Your task to perform on an android device: turn on sleep mode Image 0: 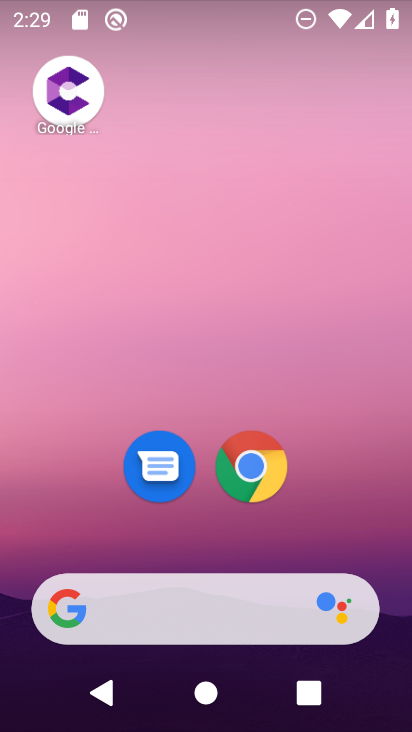
Step 0: drag from (210, 542) to (242, 205)
Your task to perform on an android device: turn on sleep mode Image 1: 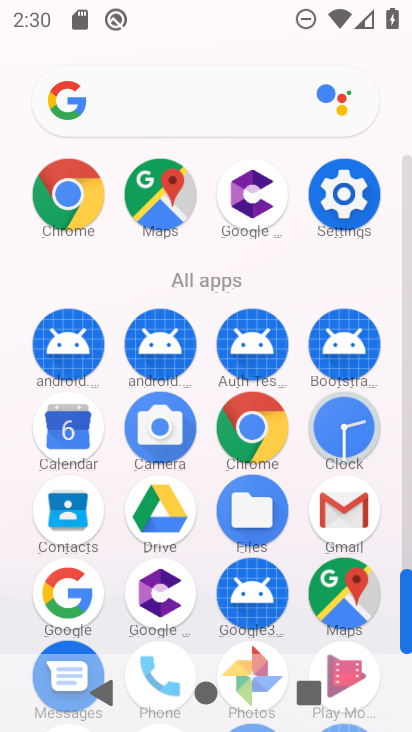
Step 1: click (335, 198)
Your task to perform on an android device: turn on sleep mode Image 2: 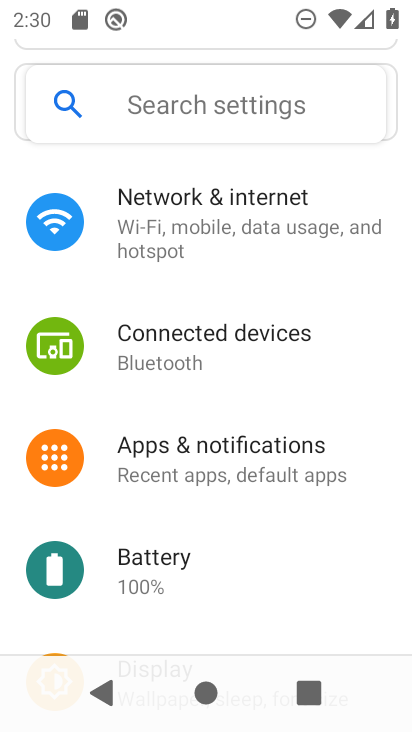
Step 2: press home button
Your task to perform on an android device: turn on sleep mode Image 3: 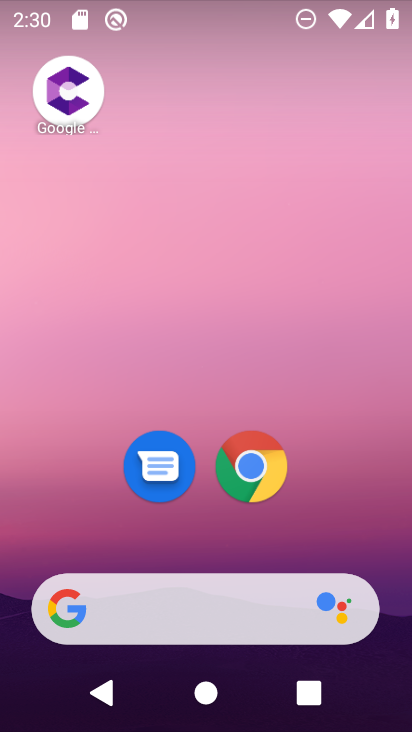
Step 3: drag from (197, 547) to (208, 244)
Your task to perform on an android device: turn on sleep mode Image 4: 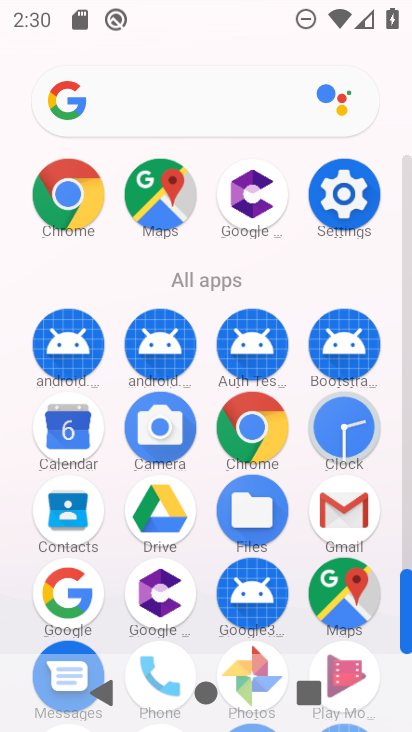
Step 4: click (350, 198)
Your task to perform on an android device: turn on sleep mode Image 5: 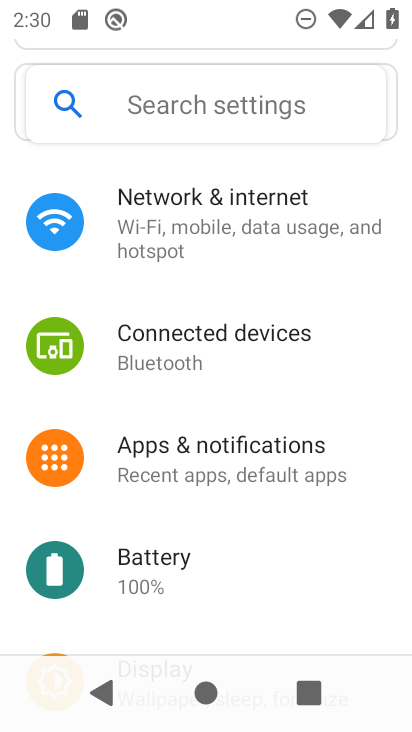
Step 5: click (194, 226)
Your task to perform on an android device: turn on sleep mode Image 6: 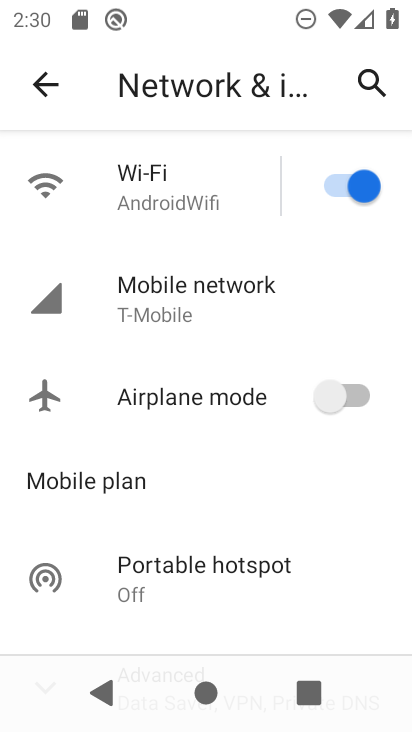
Step 6: task complete